Your task to perform on an android device: Search for bose soundlink on amazon, select the first entry, add it to the cart, then select checkout. Image 0: 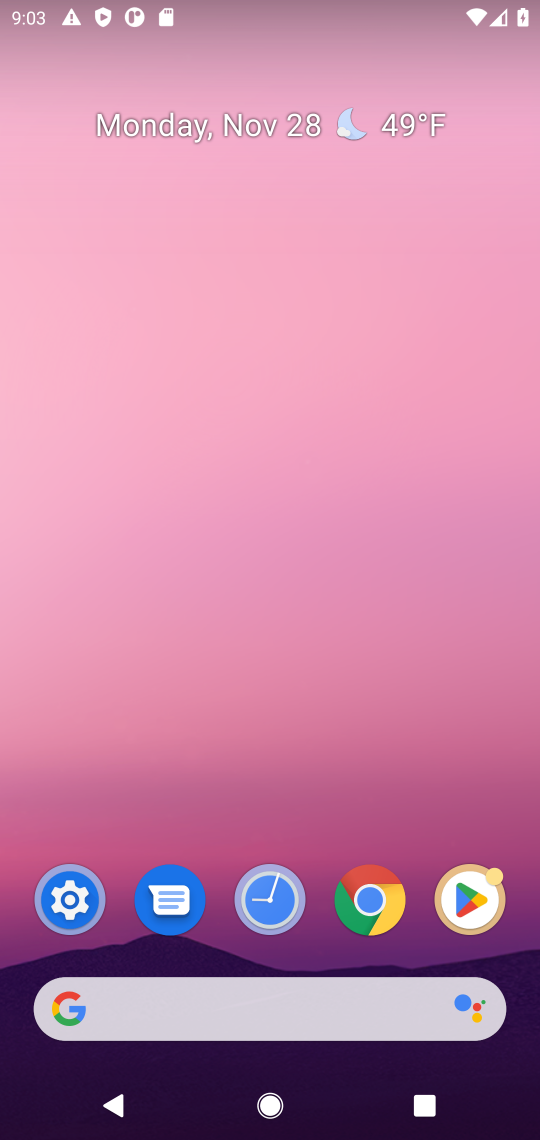
Step 0: click (218, 1014)
Your task to perform on an android device: Search for bose soundlink on amazon, select the first entry, add it to the cart, then select checkout. Image 1: 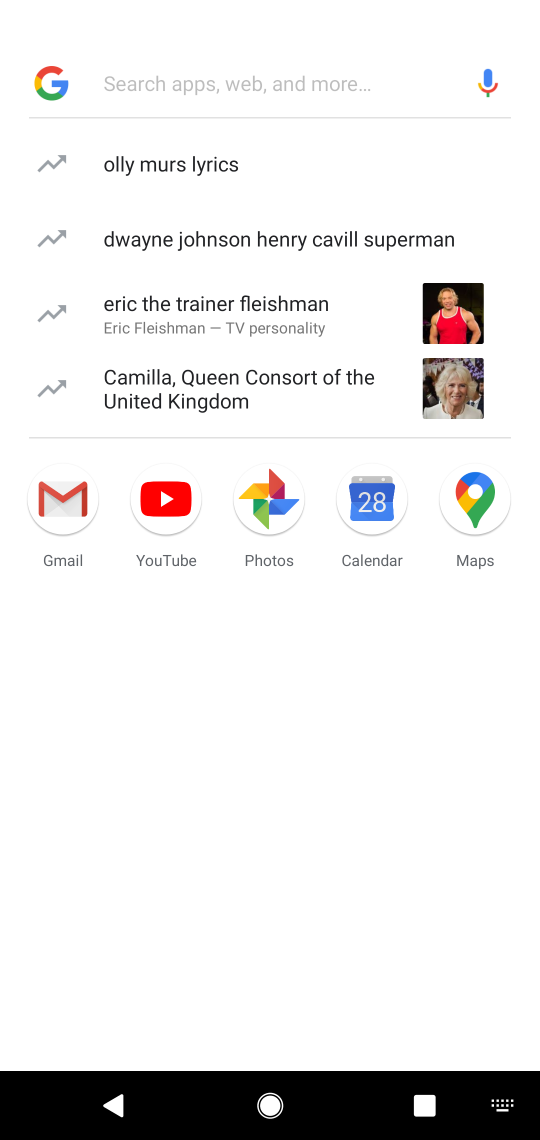
Step 1: task complete